Your task to perform on an android device: change keyboard looks Image 0: 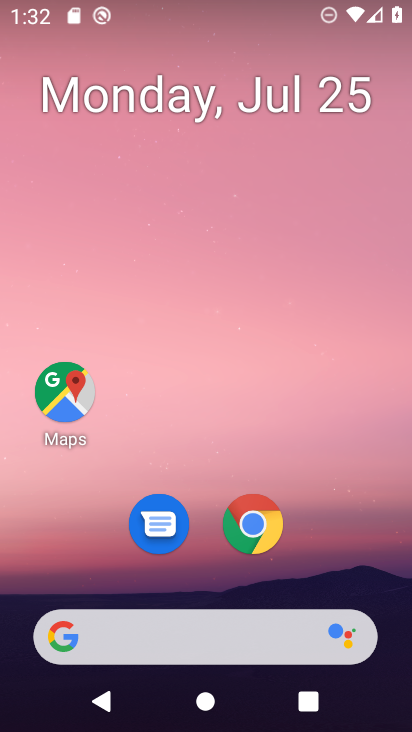
Step 0: press home button
Your task to perform on an android device: change keyboard looks Image 1: 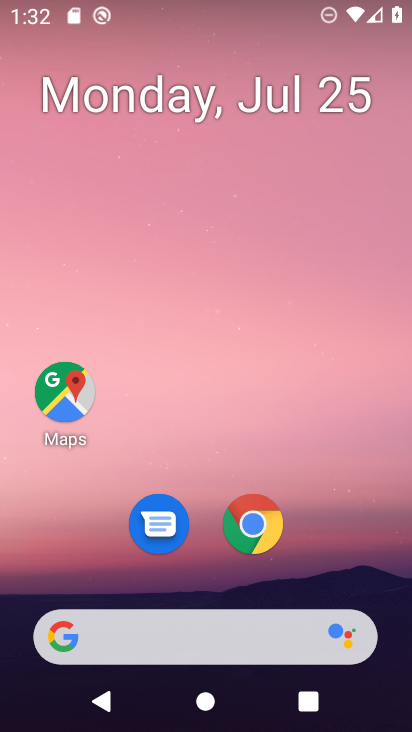
Step 1: drag from (227, 602) to (380, 132)
Your task to perform on an android device: change keyboard looks Image 2: 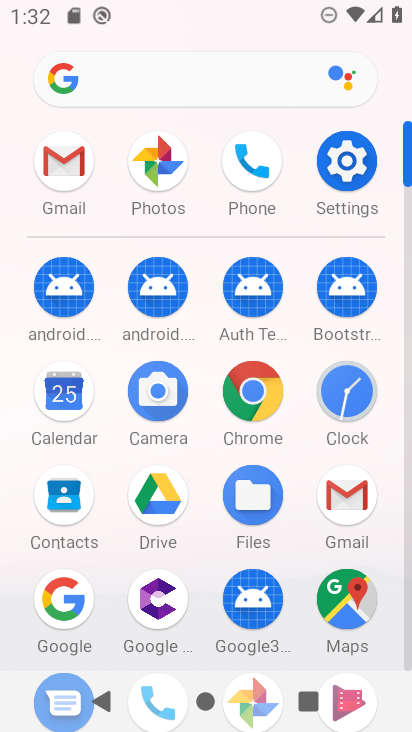
Step 2: click (350, 171)
Your task to perform on an android device: change keyboard looks Image 3: 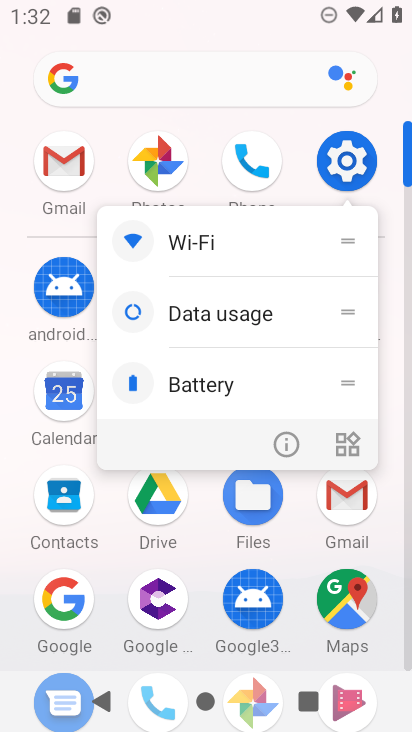
Step 3: click (335, 158)
Your task to perform on an android device: change keyboard looks Image 4: 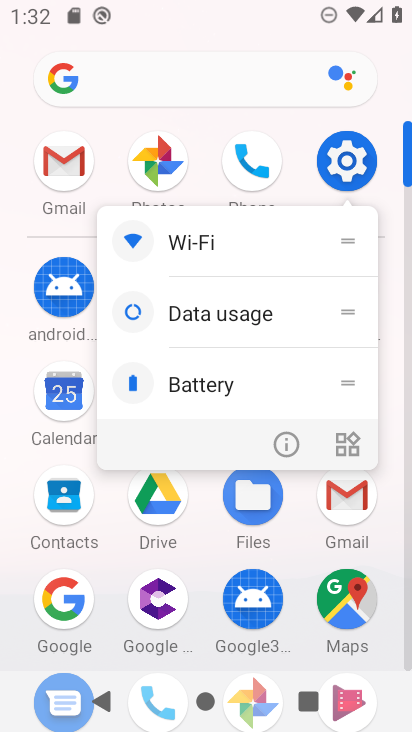
Step 4: click (346, 149)
Your task to perform on an android device: change keyboard looks Image 5: 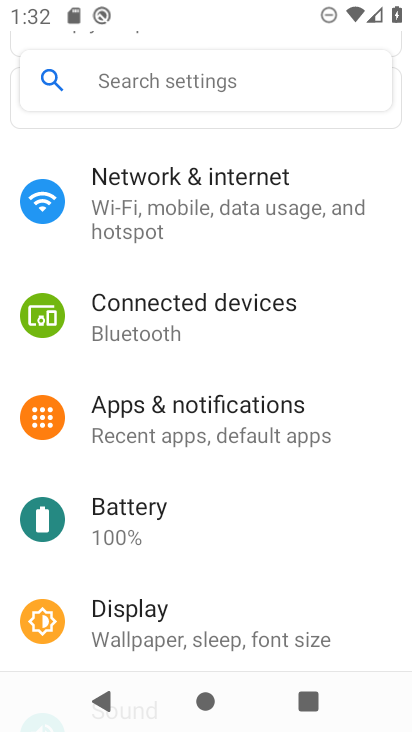
Step 5: drag from (290, 428) to (360, 186)
Your task to perform on an android device: change keyboard looks Image 6: 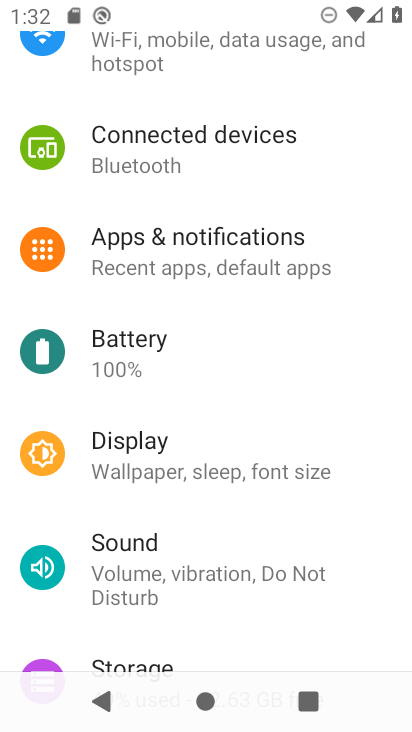
Step 6: drag from (205, 634) to (355, 69)
Your task to perform on an android device: change keyboard looks Image 7: 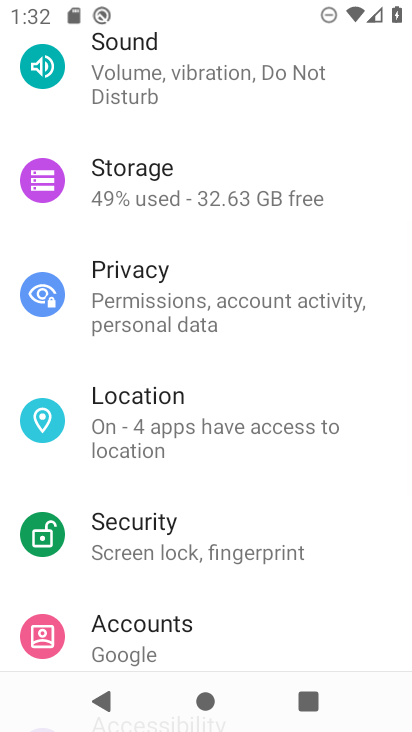
Step 7: drag from (241, 536) to (315, 95)
Your task to perform on an android device: change keyboard looks Image 8: 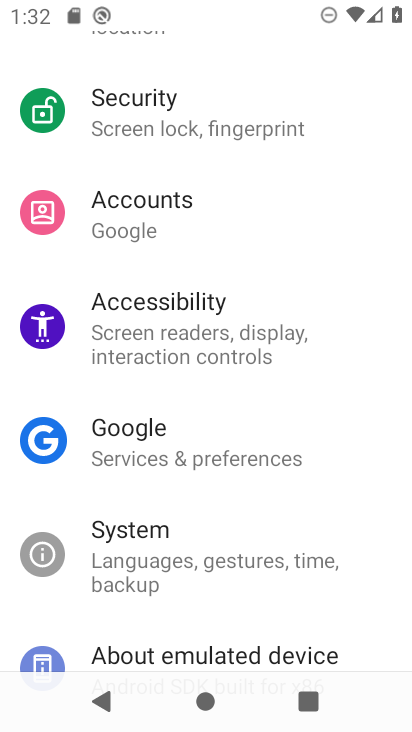
Step 8: click (173, 544)
Your task to perform on an android device: change keyboard looks Image 9: 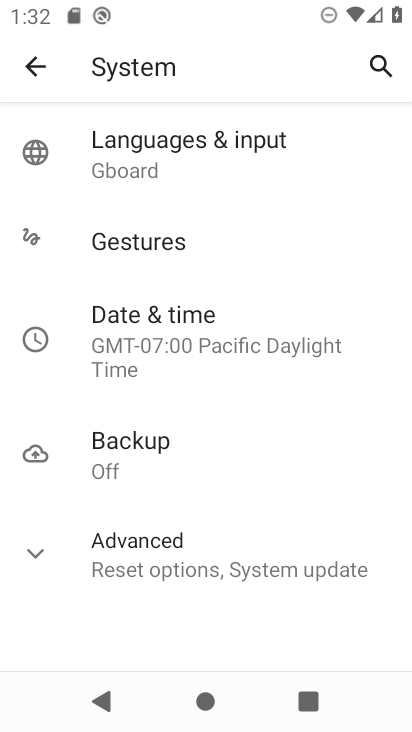
Step 9: click (167, 136)
Your task to perform on an android device: change keyboard looks Image 10: 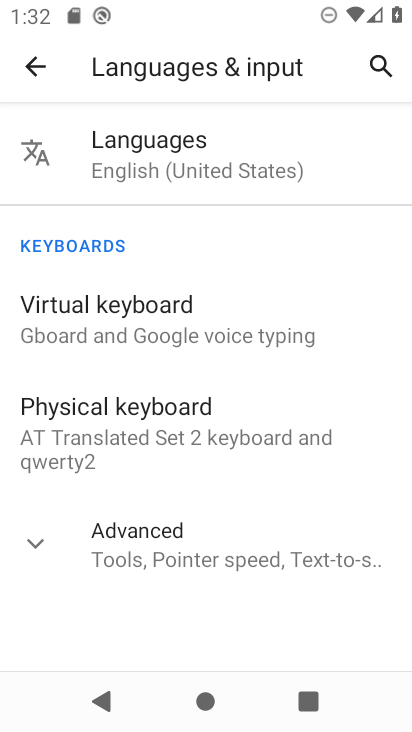
Step 10: click (137, 319)
Your task to perform on an android device: change keyboard looks Image 11: 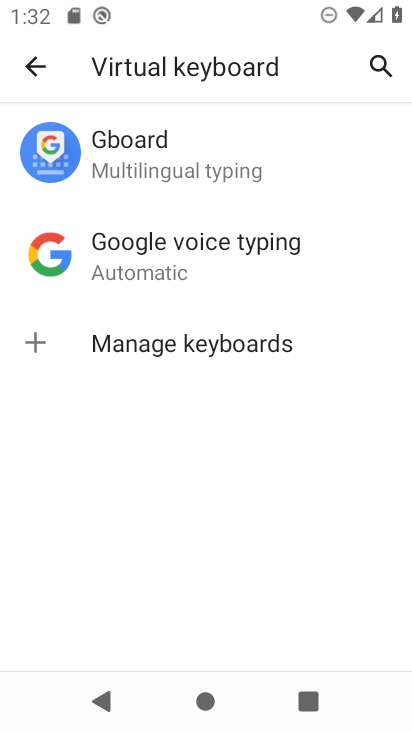
Step 11: click (173, 155)
Your task to perform on an android device: change keyboard looks Image 12: 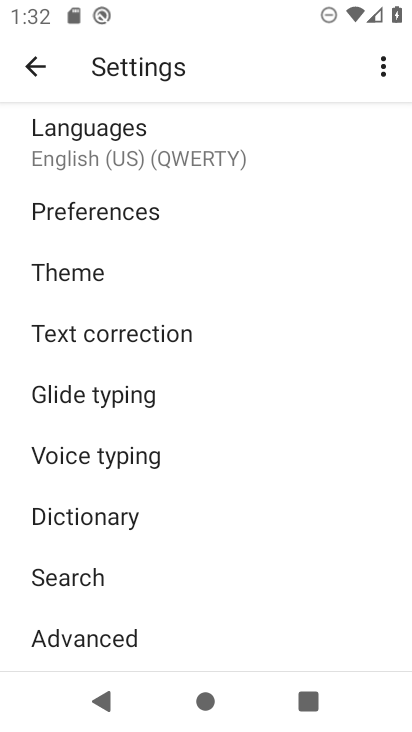
Step 12: click (80, 271)
Your task to perform on an android device: change keyboard looks Image 13: 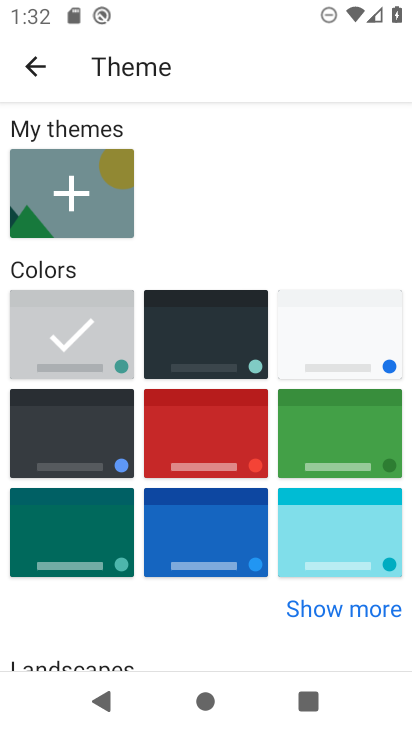
Step 13: click (332, 508)
Your task to perform on an android device: change keyboard looks Image 14: 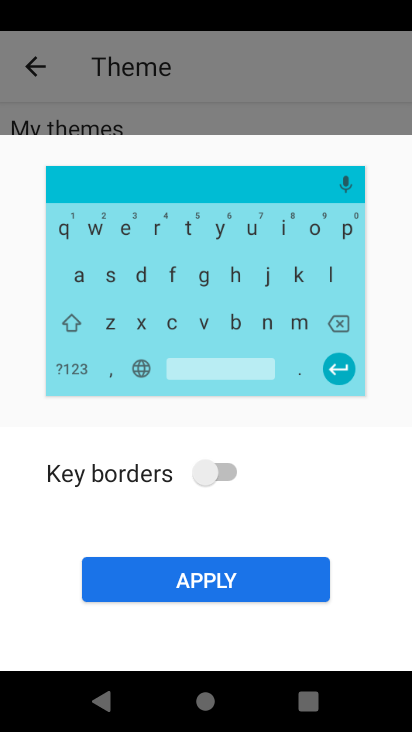
Step 14: click (230, 582)
Your task to perform on an android device: change keyboard looks Image 15: 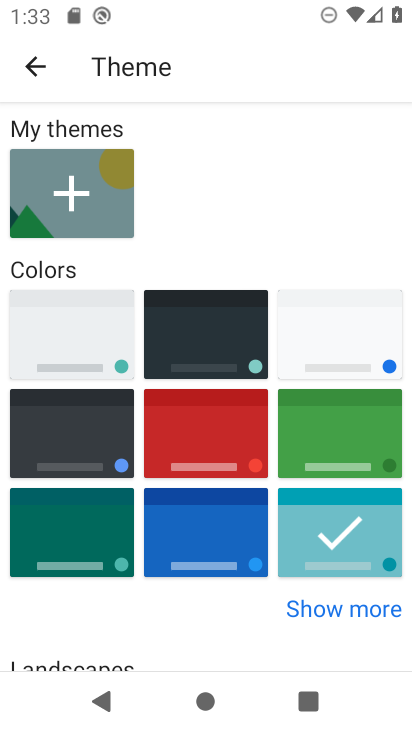
Step 15: task complete